Your task to perform on an android device: turn on wifi Image 0: 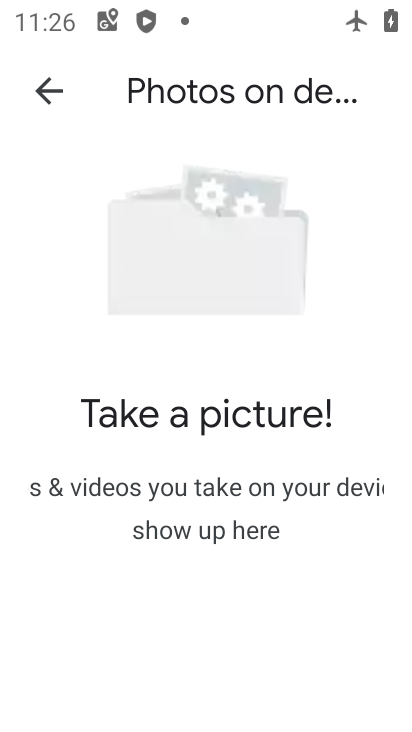
Step 0: press home button
Your task to perform on an android device: turn on wifi Image 1: 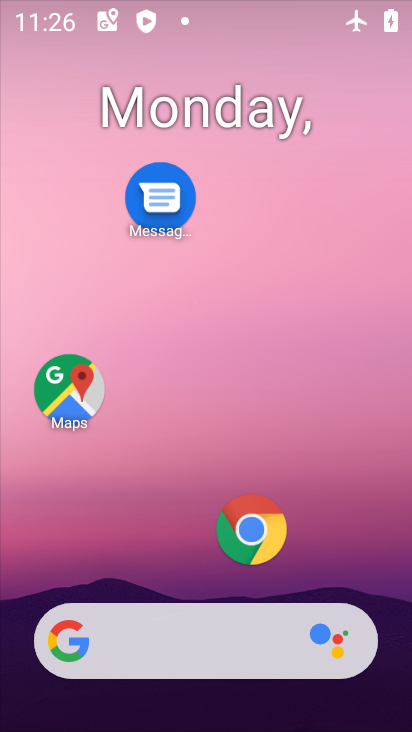
Step 1: drag from (213, 573) to (305, 11)
Your task to perform on an android device: turn on wifi Image 2: 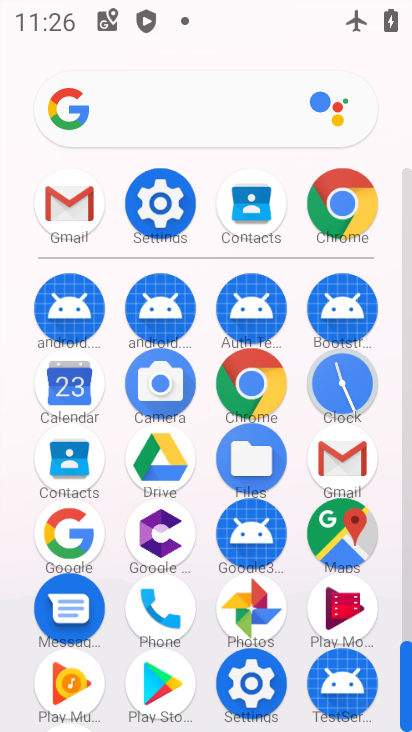
Step 2: click (162, 213)
Your task to perform on an android device: turn on wifi Image 3: 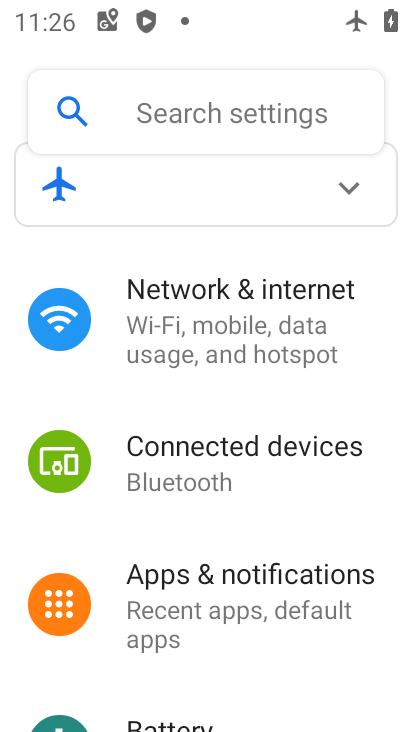
Step 3: click (239, 367)
Your task to perform on an android device: turn on wifi Image 4: 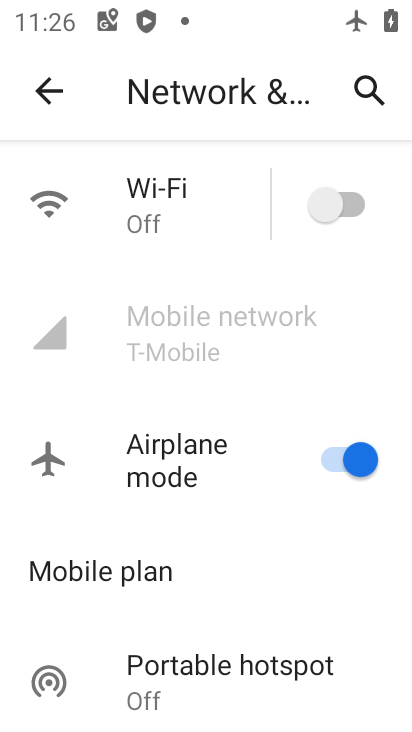
Step 4: click (317, 216)
Your task to perform on an android device: turn on wifi Image 5: 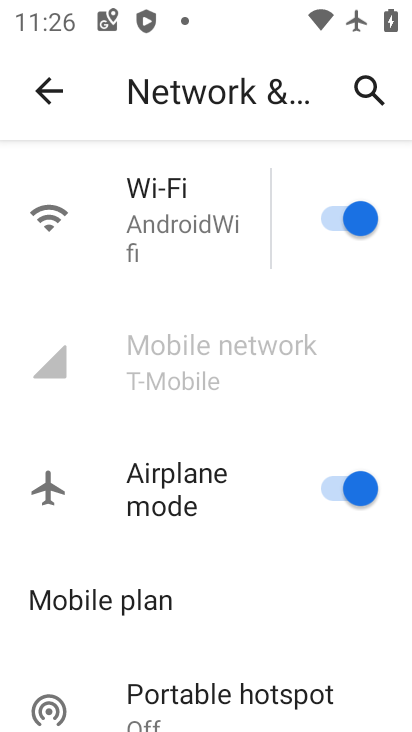
Step 5: task complete